Your task to perform on an android device: Open Google Chrome and click the shortcut for Amazon.com Image 0: 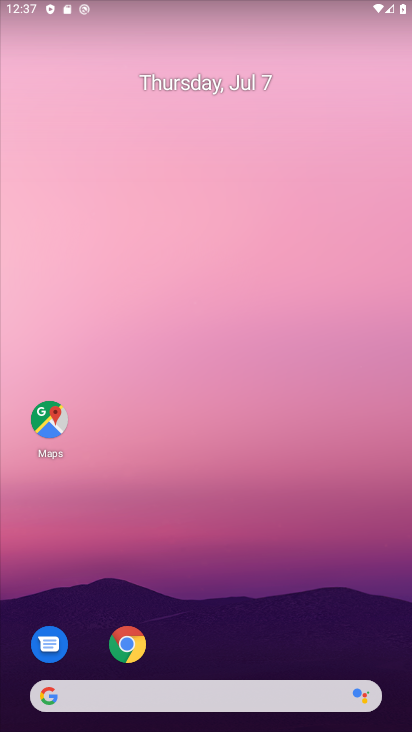
Step 0: drag from (254, 626) to (150, 136)
Your task to perform on an android device: Open Google Chrome and click the shortcut for Amazon.com Image 1: 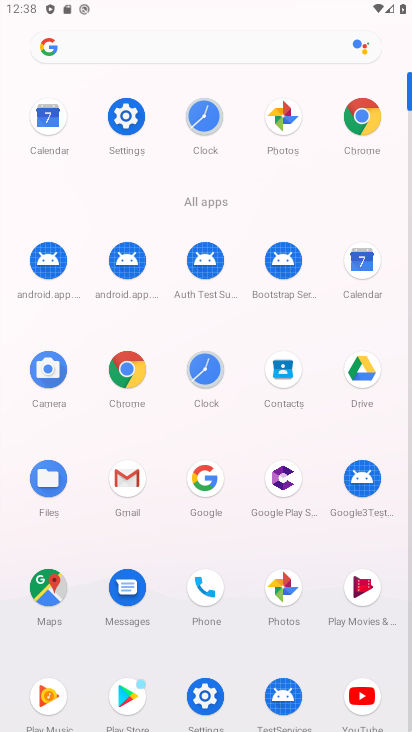
Step 1: click (363, 118)
Your task to perform on an android device: Open Google Chrome and click the shortcut for Amazon.com Image 2: 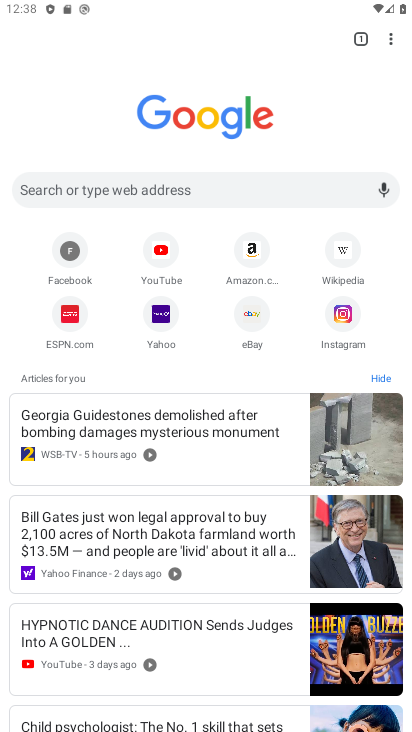
Step 2: click (261, 248)
Your task to perform on an android device: Open Google Chrome and click the shortcut for Amazon.com Image 3: 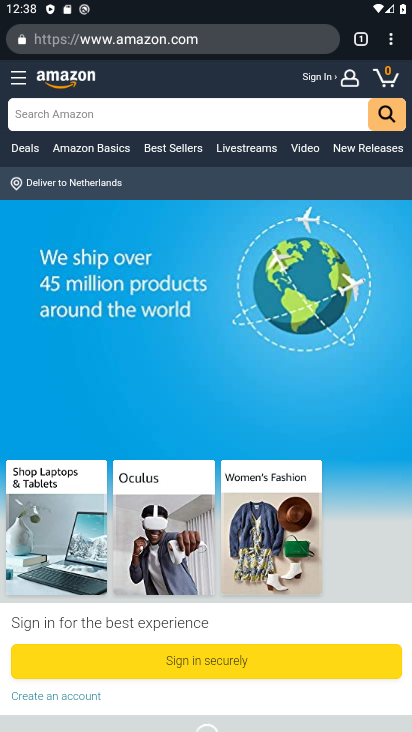
Step 3: task complete